Your task to perform on an android device: open the mobile data screen to see how much data has been used Image 0: 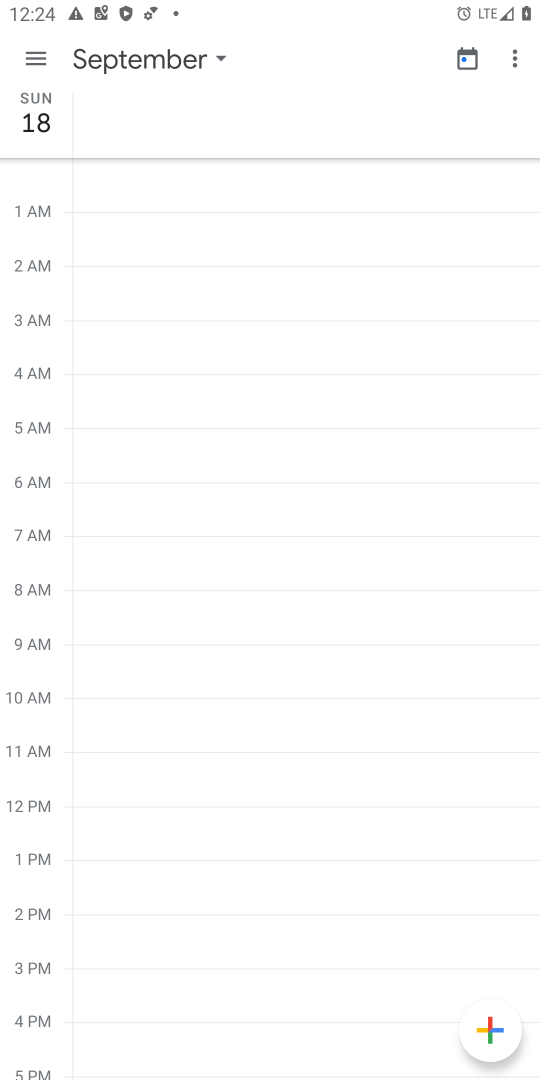
Step 0: press home button
Your task to perform on an android device: open the mobile data screen to see how much data has been used Image 1: 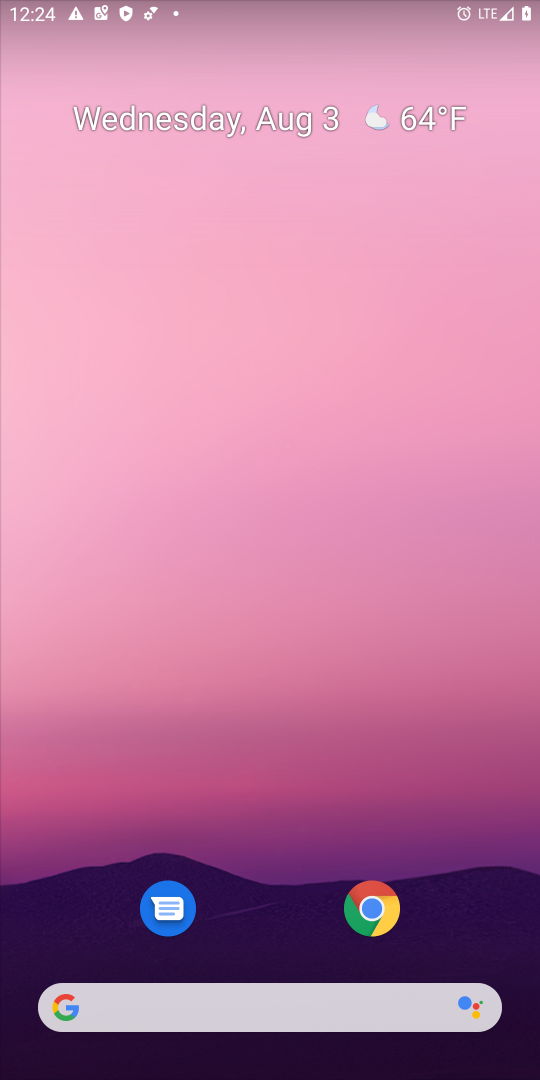
Step 1: drag from (231, 822) to (350, 62)
Your task to perform on an android device: open the mobile data screen to see how much data has been used Image 2: 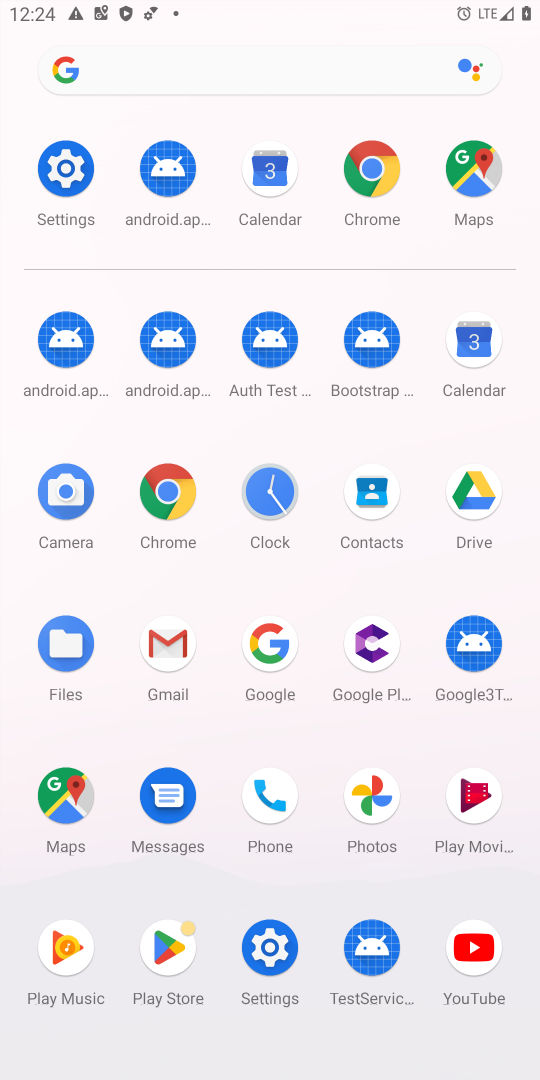
Step 2: click (275, 972)
Your task to perform on an android device: open the mobile data screen to see how much data has been used Image 3: 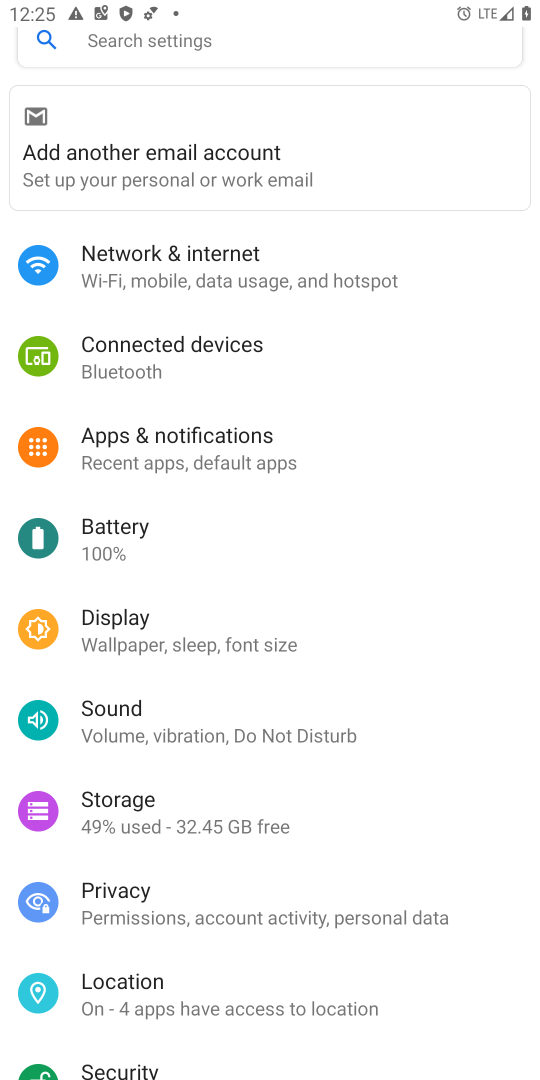
Step 3: click (330, 281)
Your task to perform on an android device: open the mobile data screen to see how much data has been used Image 4: 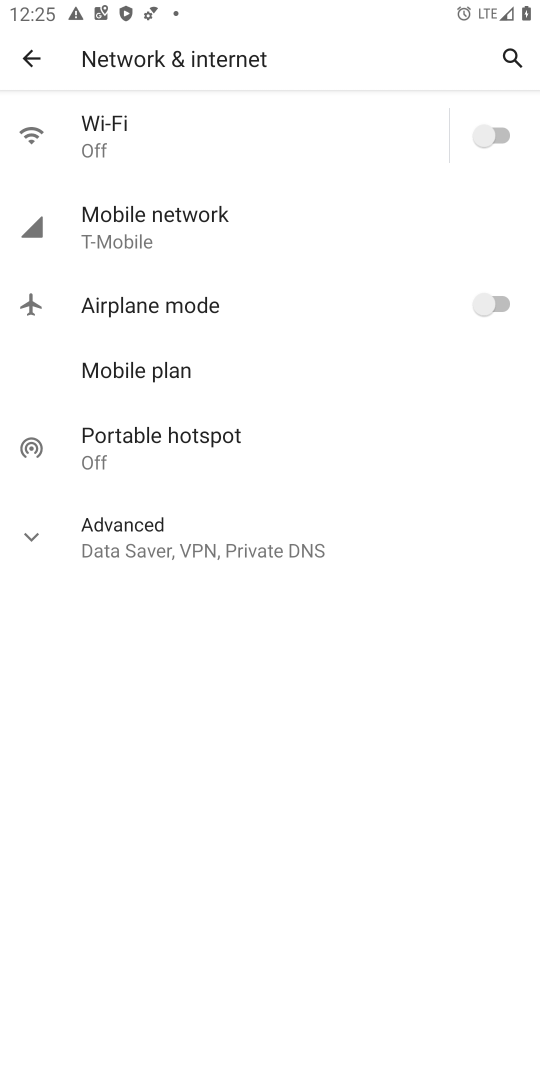
Step 4: click (271, 236)
Your task to perform on an android device: open the mobile data screen to see how much data has been used Image 5: 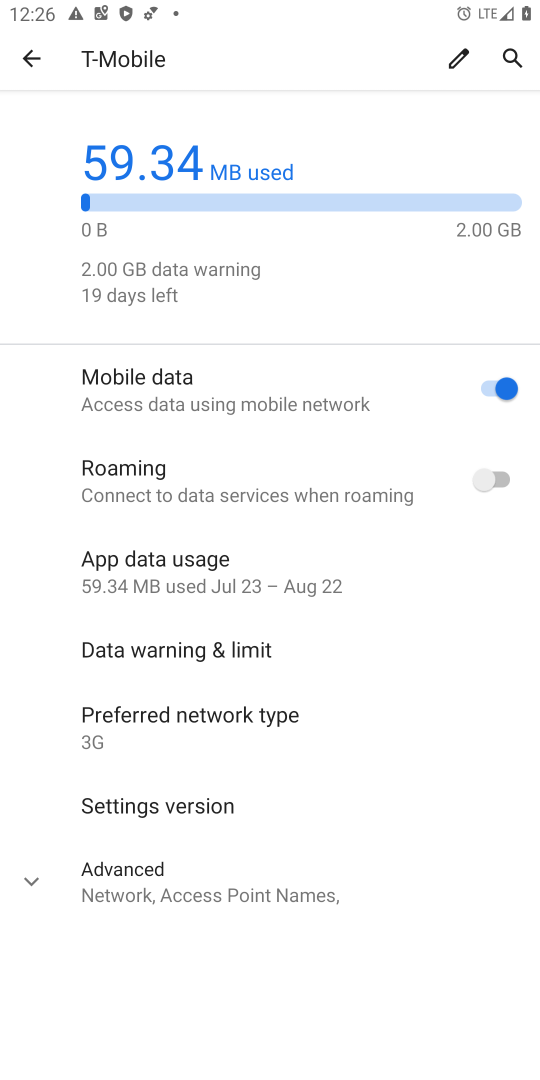
Step 5: click (281, 592)
Your task to perform on an android device: open the mobile data screen to see how much data has been used Image 6: 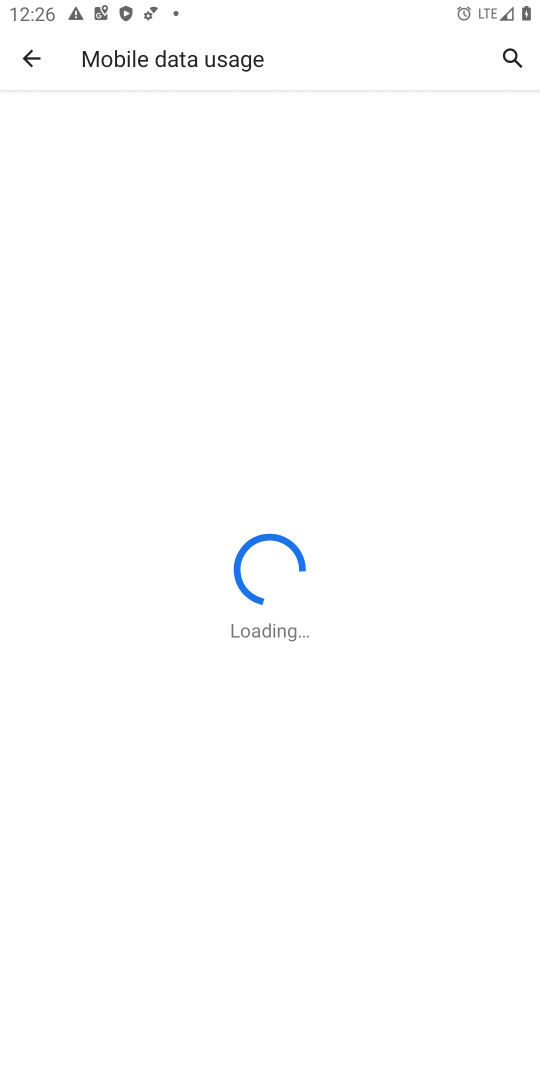
Step 6: click (281, 590)
Your task to perform on an android device: open the mobile data screen to see how much data has been used Image 7: 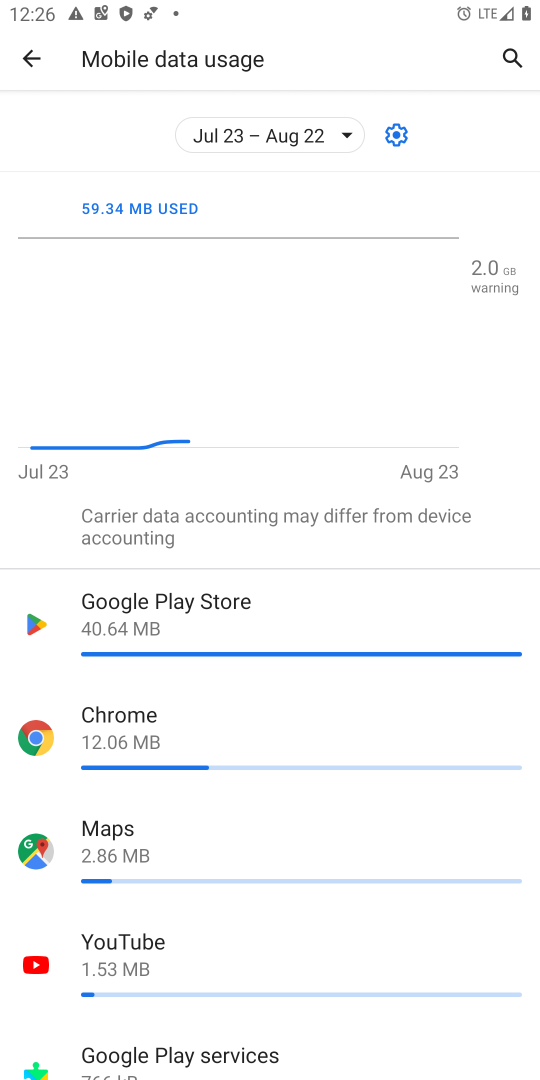
Step 7: task complete